Your task to perform on an android device: Open Google Chrome and click the shortcut for Amazon.com Image 0: 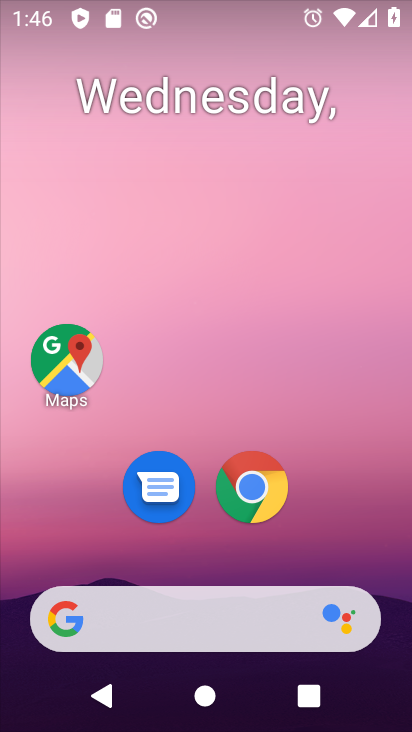
Step 0: drag from (394, 610) to (163, 84)
Your task to perform on an android device: Open Google Chrome and click the shortcut for Amazon.com Image 1: 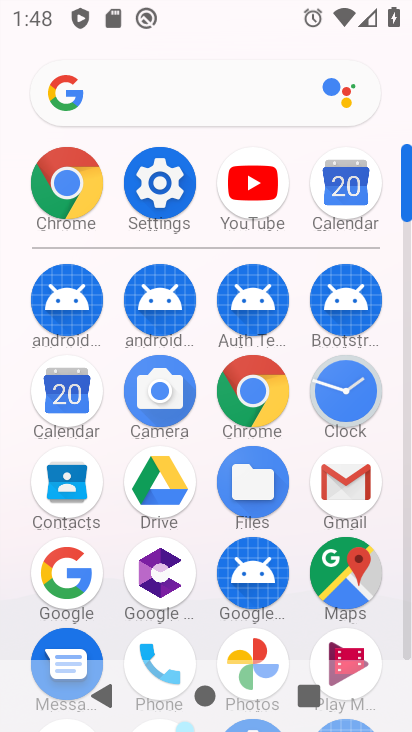
Step 1: click (230, 394)
Your task to perform on an android device: Open Google Chrome and click the shortcut for Amazon.com Image 2: 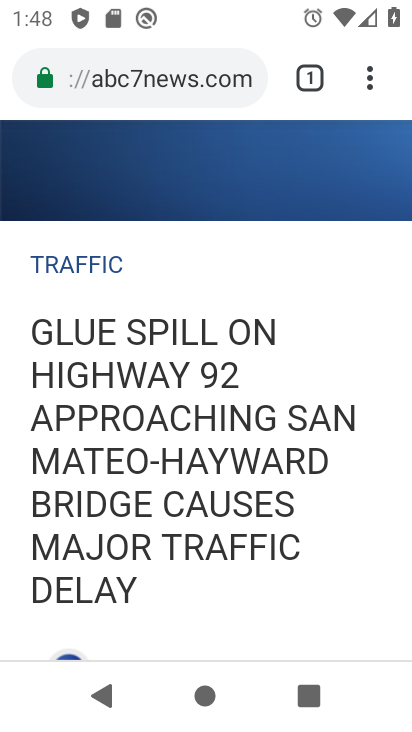
Step 2: press back button
Your task to perform on an android device: Open Google Chrome and click the shortcut for Amazon.com Image 3: 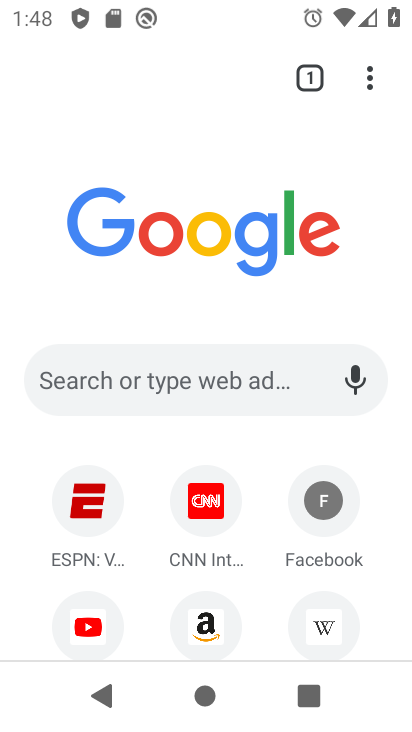
Step 3: click (193, 610)
Your task to perform on an android device: Open Google Chrome and click the shortcut for Amazon.com Image 4: 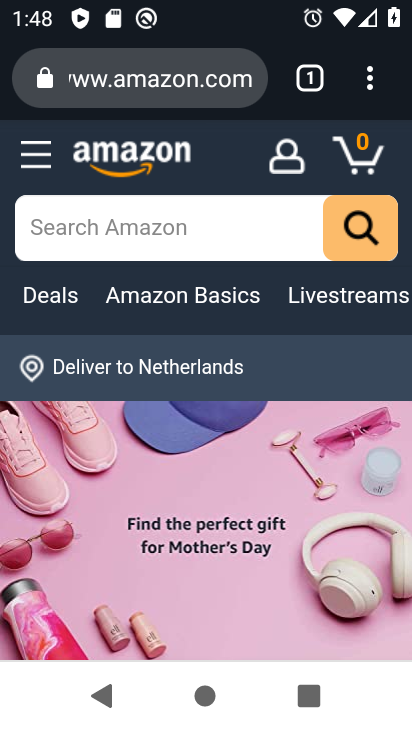
Step 4: task complete